Your task to perform on an android device: Search for vegetarian restaurants on Maps Image 0: 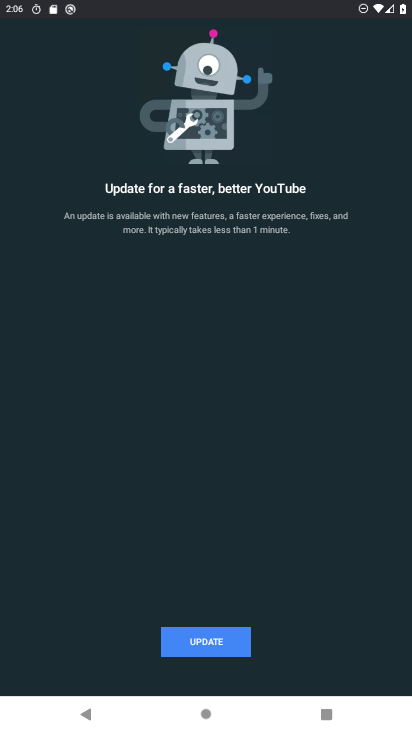
Step 0: press home button
Your task to perform on an android device: Search for vegetarian restaurants on Maps Image 1: 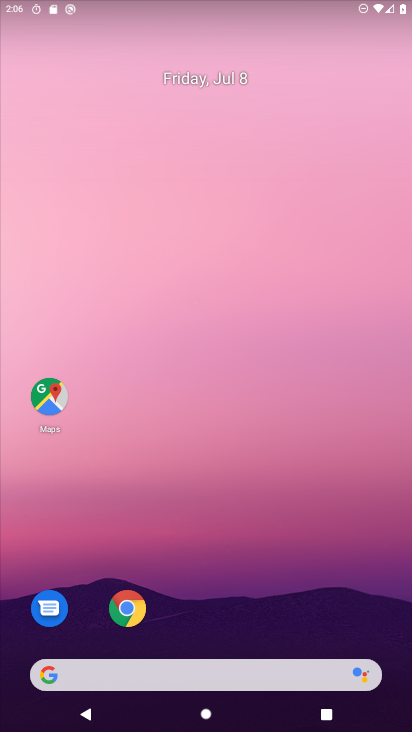
Step 1: drag from (248, 724) to (242, 199)
Your task to perform on an android device: Search for vegetarian restaurants on Maps Image 2: 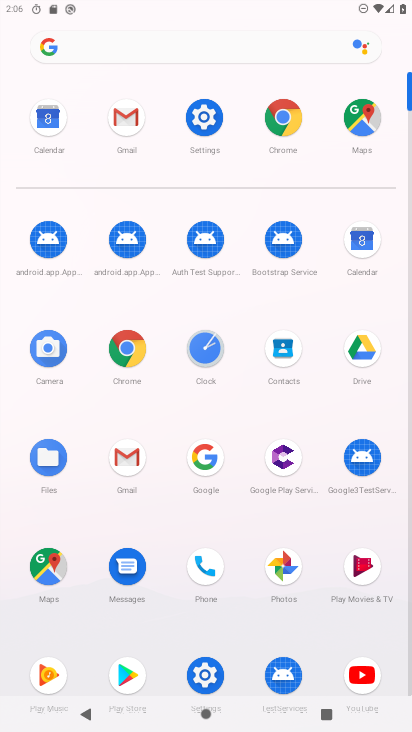
Step 2: click (355, 114)
Your task to perform on an android device: Search for vegetarian restaurants on Maps Image 3: 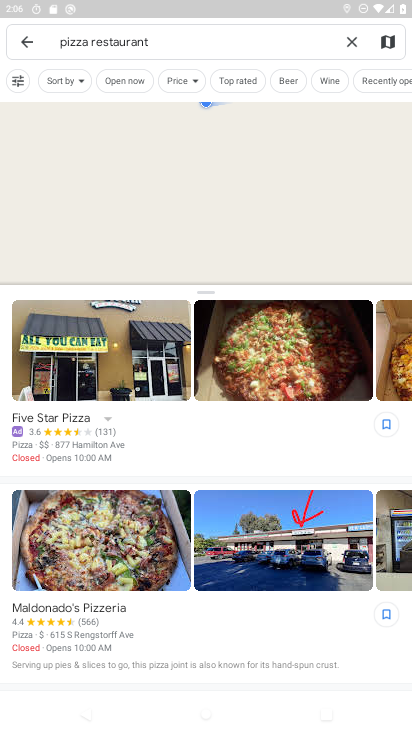
Step 3: click (348, 42)
Your task to perform on an android device: Search for vegetarian restaurants on Maps Image 4: 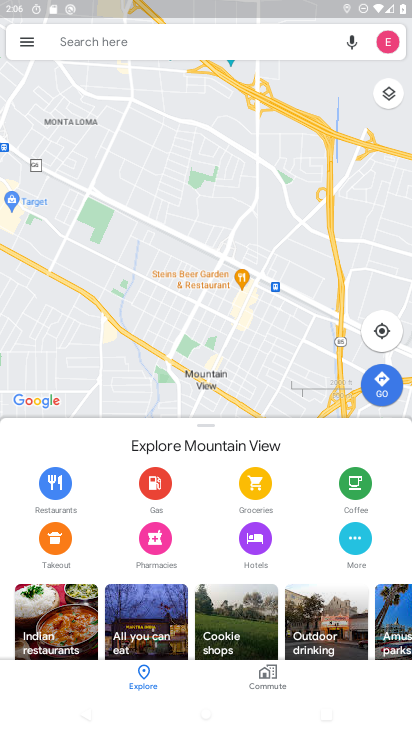
Step 4: click (208, 39)
Your task to perform on an android device: Search for vegetarian restaurants on Maps Image 5: 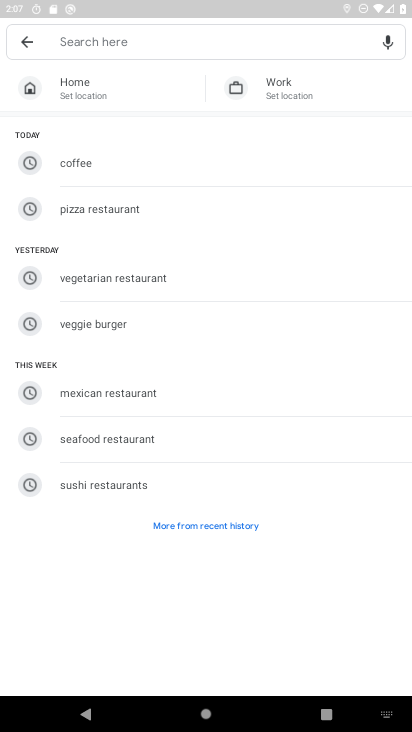
Step 5: type "vegetarian restaurants"
Your task to perform on an android device: Search for vegetarian restaurants on Maps Image 6: 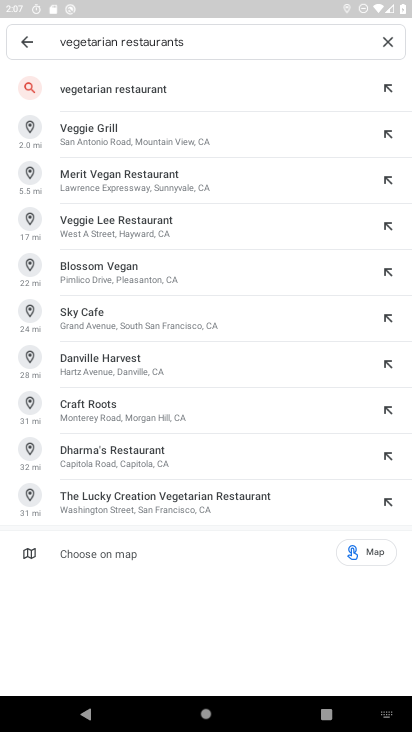
Step 6: click (133, 86)
Your task to perform on an android device: Search for vegetarian restaurants on Maps Image 7: 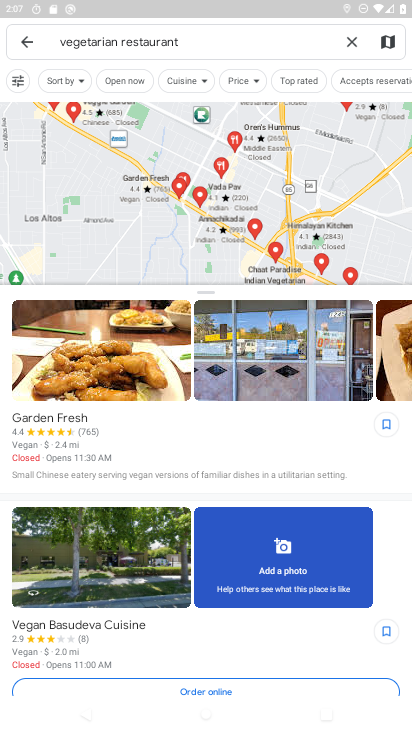
Step 7: task complete